Your task to perform on an android device: open a bookmark in the chrome app Image 0: 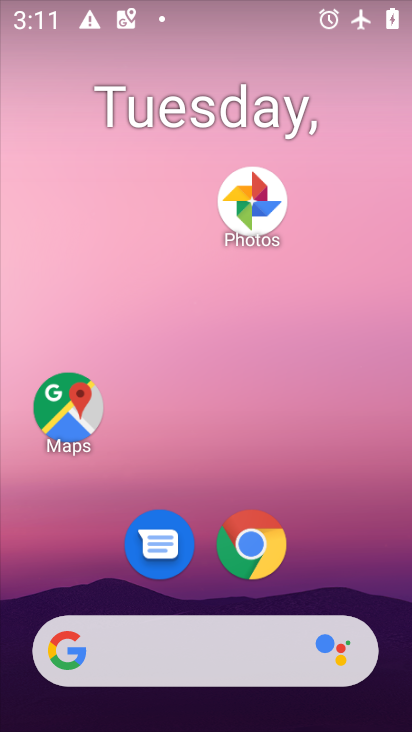
Step 0: drag from (321, 413) to (287, 72)
Your task to perform on an android device: open a bookmark in the chrome app Image 1: 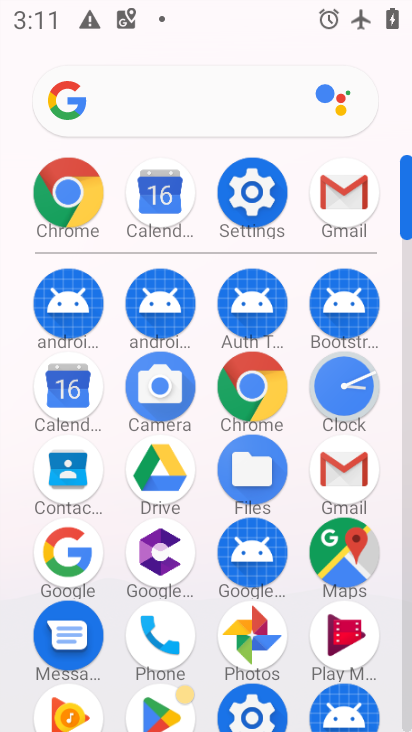
Step 1: click (248, 391)
Your task to perform on an android device: open a bookmark in the chrome app Image 2: 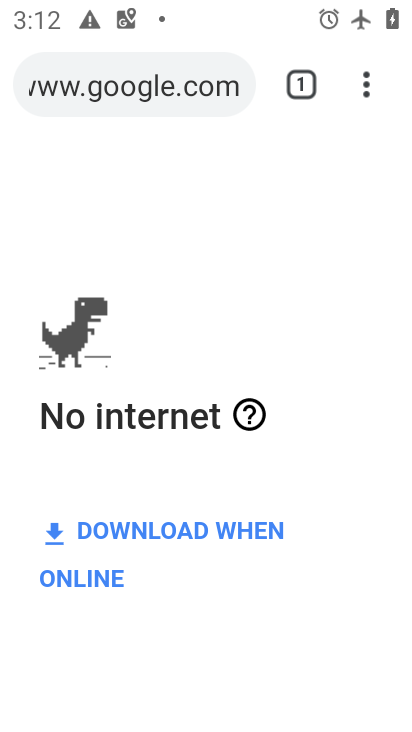
Step 2: drag from (370, 70) to (90, 328)
Your task to perform on an android device: open a bookmark in the chrome app Image 3: 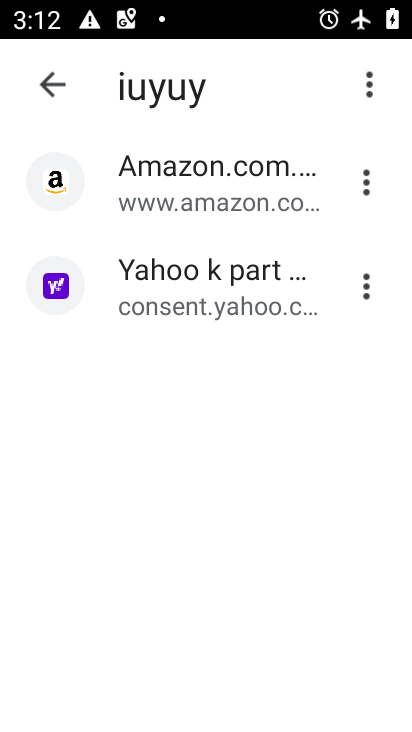
Step 3: click (128, 214)
Your task to perform on an android device: open a bookmark in the chrome app Image 4: 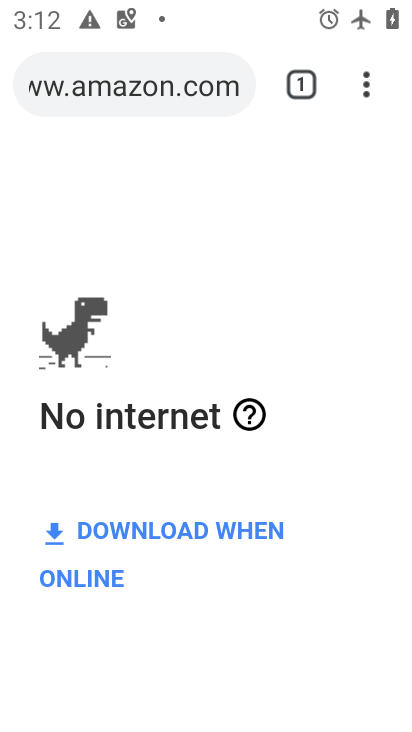
Step 4: task complete